Your task to perform on an android device: toggle pop-ups in chrome Image 0: 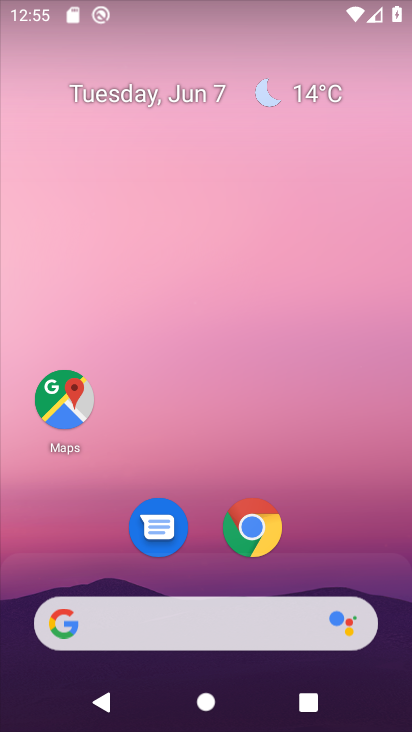
Step 0: click (247, 531)
Your task to perform on an android device: toggle pop-ups in chrome Image 1: 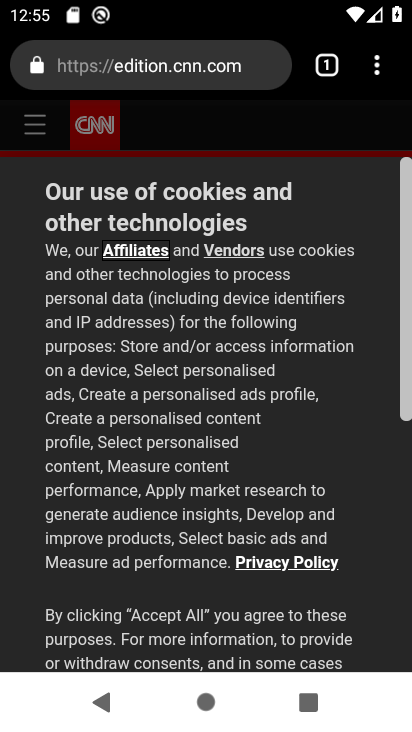
Step 1: click (383, 71)
Your task to perform on an android device: toggle pop-ups in chrome Image 2: 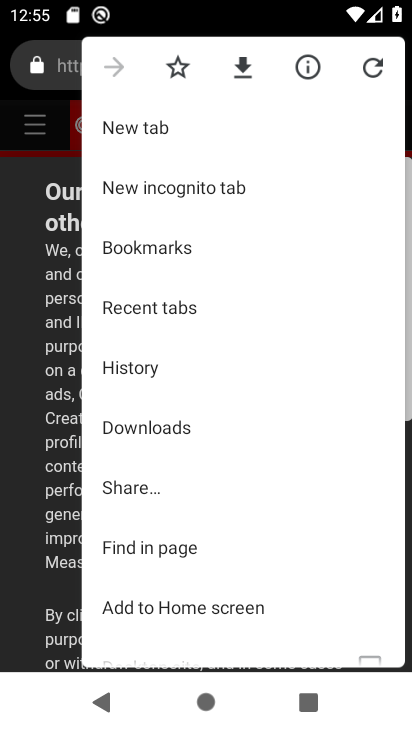
Step 2: drag from (189, 564) to (188, 142)
Your task to perform on an android device: toggle pop-ups in chrome Image 3: 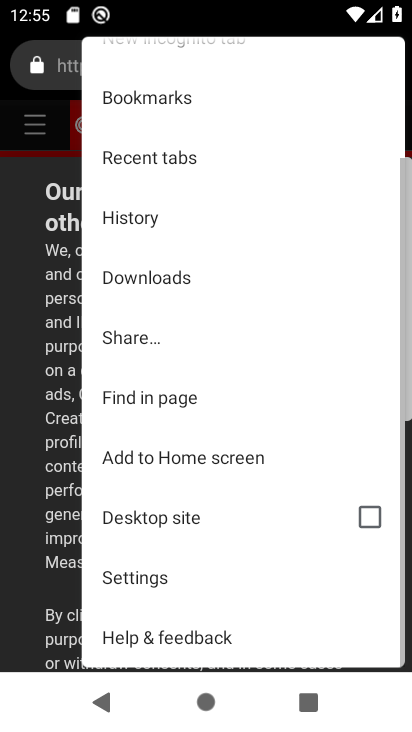
Step 3: click (169, 574)
Your task to perform on an android device: toggle pop-ups in chrome Image 4: 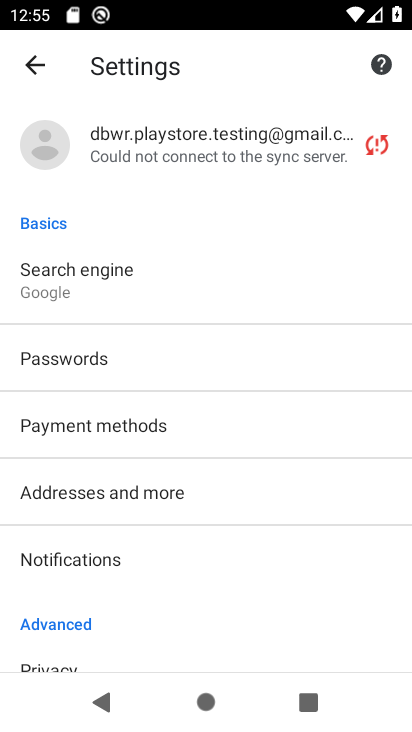
Step 4: drag from (158, 611) to (203, 187)
Your task to perform on an android device: toggle pop-ups in chrome Image 5: 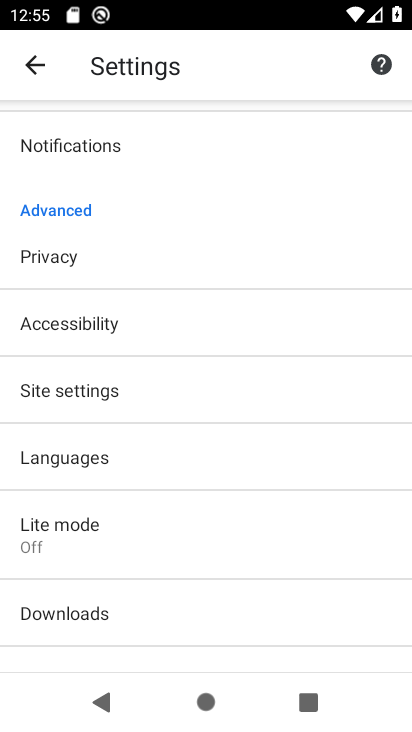
Step 5: click (102, 387)
Your task to perform on an android device: toggle pop-ups in chrome Image 6: 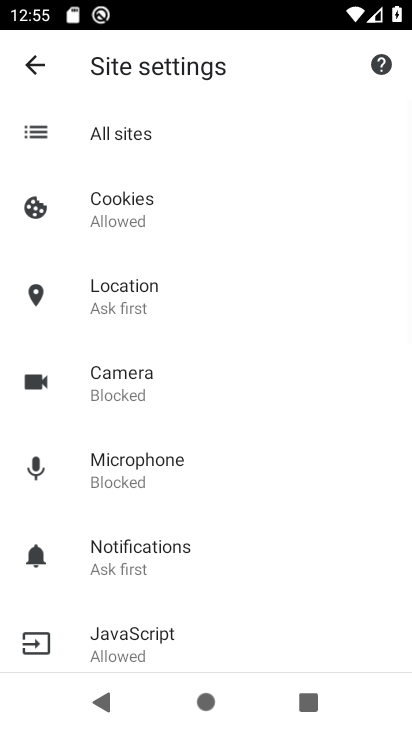
Step 6: drag from (92, 638) to (108, 240)
Your task to perform on an android device: toggle pop-ups in chrome Image 7: 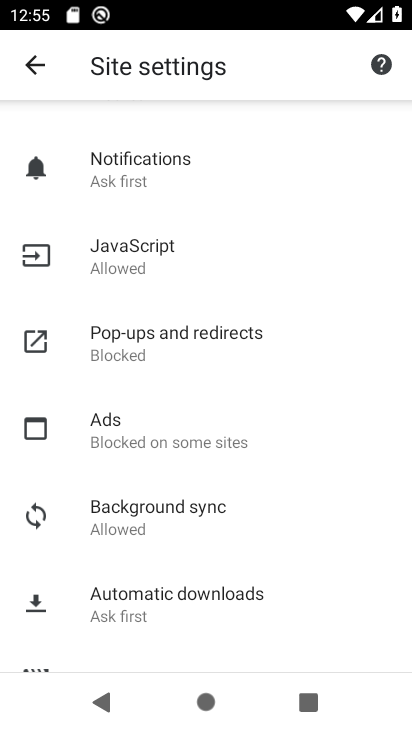
Step 7: click (175, 331)
Your task to perform on an android device: toggle pop-ups in chrome Image 8: 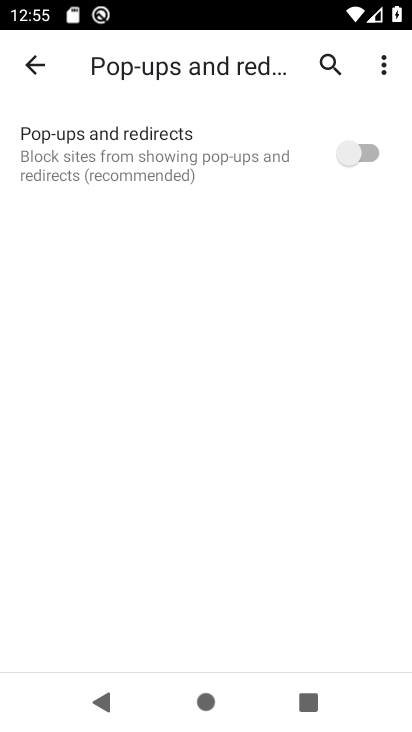
Step 8: click (346, 151)
Your task to perform on an android device: toggle pop-ups in chrome Image 9: 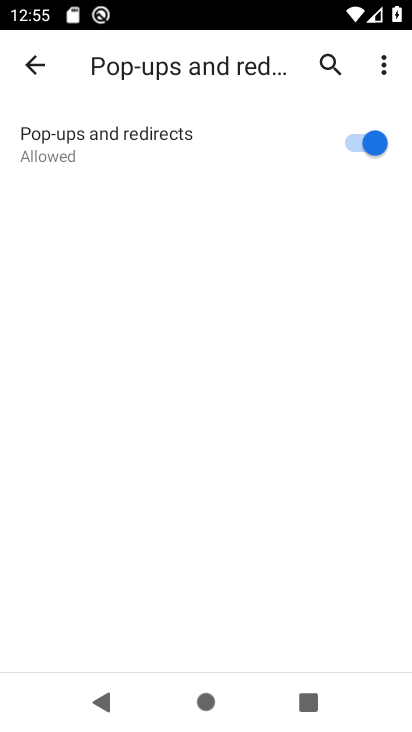
Step 9: task complete